Your task to perform on an android device: check storage Image 0: 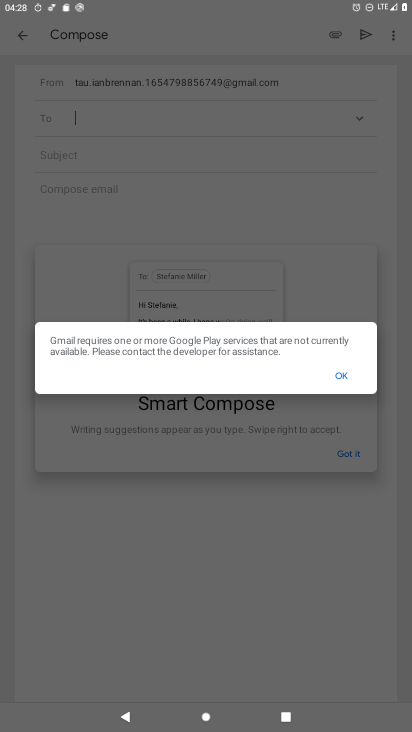
Step 0: press home button
Your task to perform on an android device: check storage Image 1: 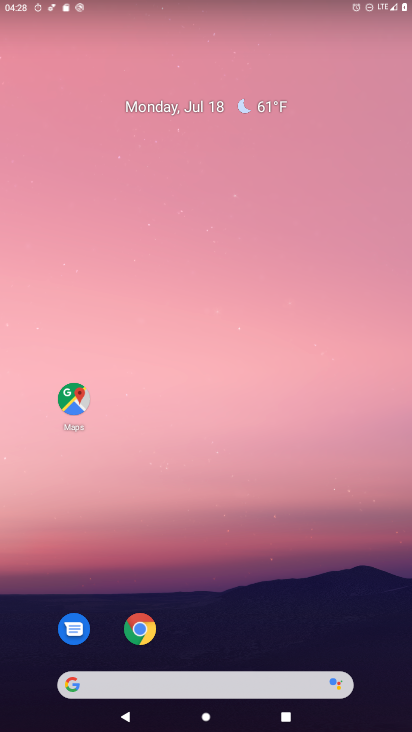
Step 1: drag from (156, 679) to (304, 100)
Your task to perform on an android device: check storage Image 2: 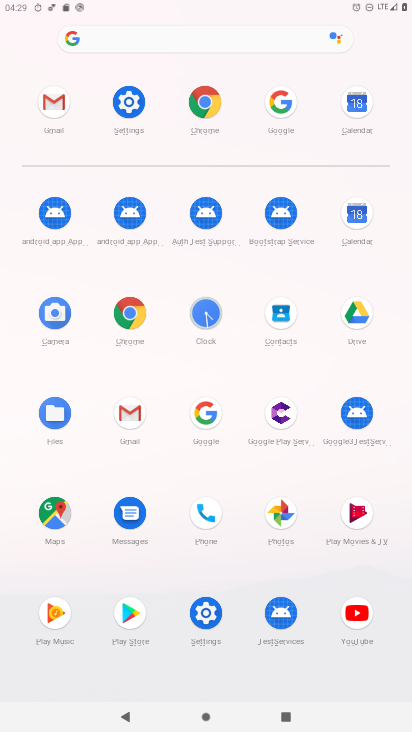
Step 2: click (130, 100)
Your task to perform on an android device: check storage Image 3: 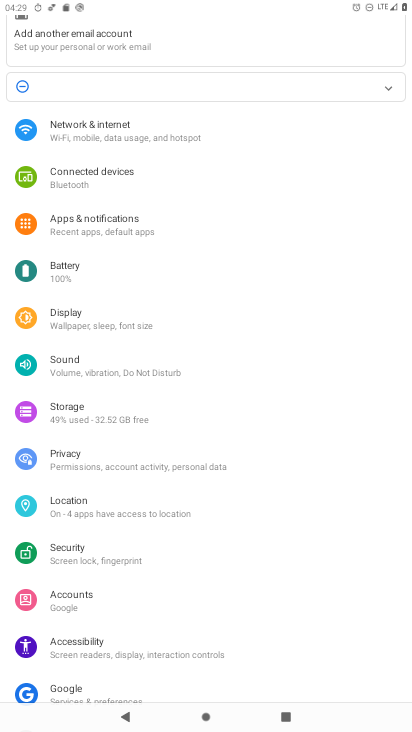
Step 3: click (88, 417)
Your task to perform on an android device: check storage Image 4: 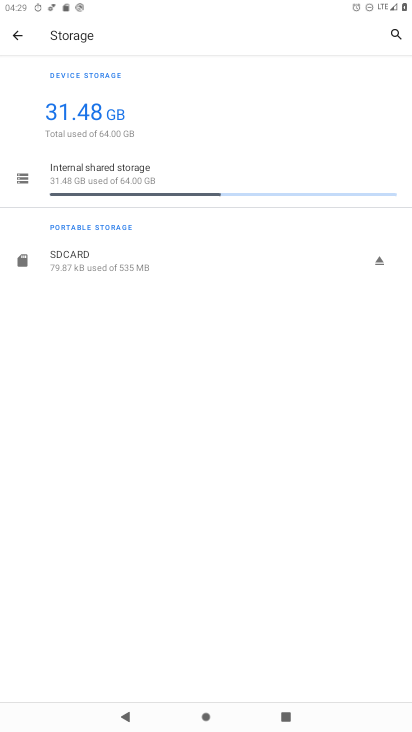
Step 4: task complete